Your task to perform on an android device: turn off data saver in the chrome app Image 0: 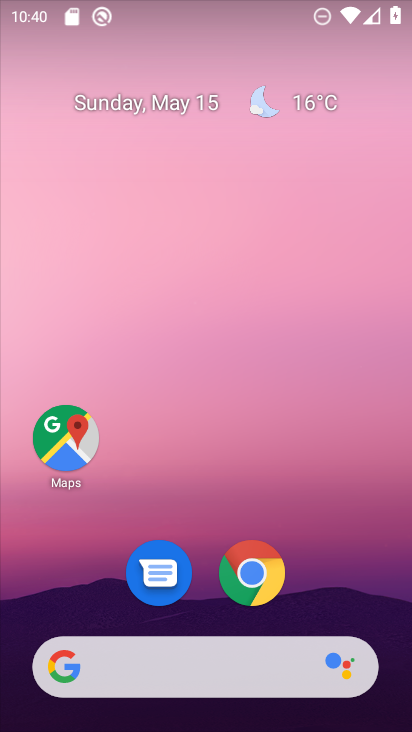
Step 0: click (257, 580)
Your task to perform on an android device: turn off data saver in the chrome app Image 1: 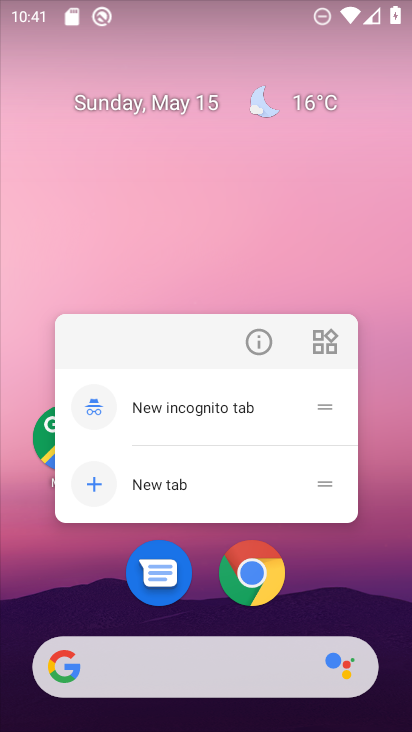
Step 1: click (242, 579)
Your task to perform on an android device: turn off data saver in the chrome app Image 2: 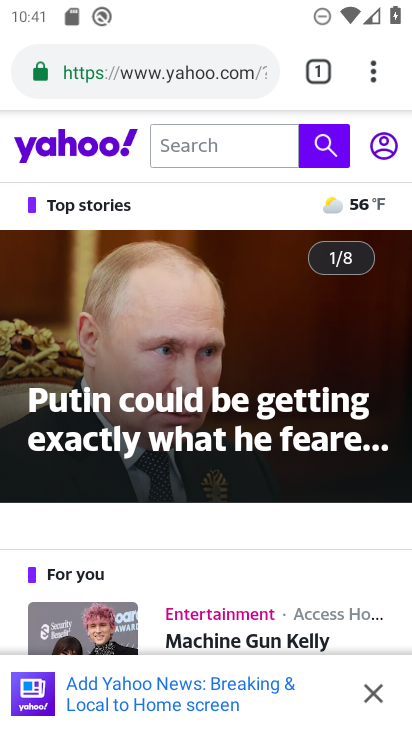
Step 2: drag from (366, 71) to (119, 578)
Your task to perform on an android device: turn off data saver in the chrome app Image 3: 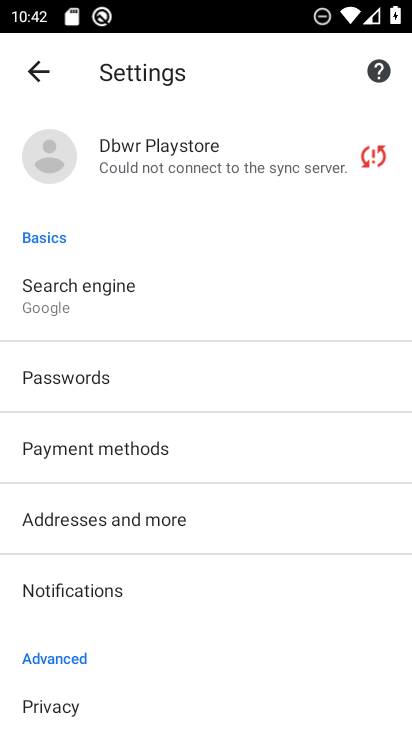
Step 3: drag from (206, 654) to (204, 464)
Your task to perform on an android device: turn off data saver in the chrome app Image 4: 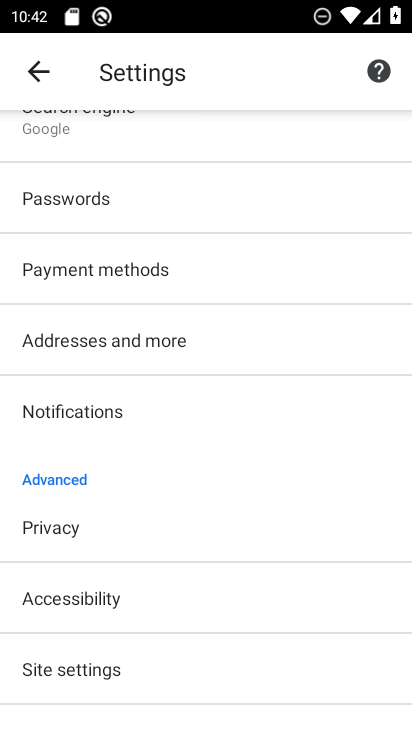
Step 4: drag from (215, 684) to (194, 194)
Your task to perform on an android device: turn off data saver in the chrome app Image 5: 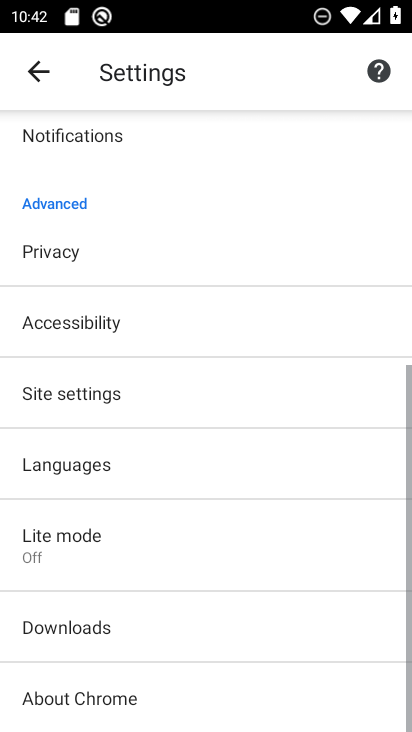
Step 5: click (99, 543)
Your task to perform on an android device: turn off data saver in the chrome app Image 6: 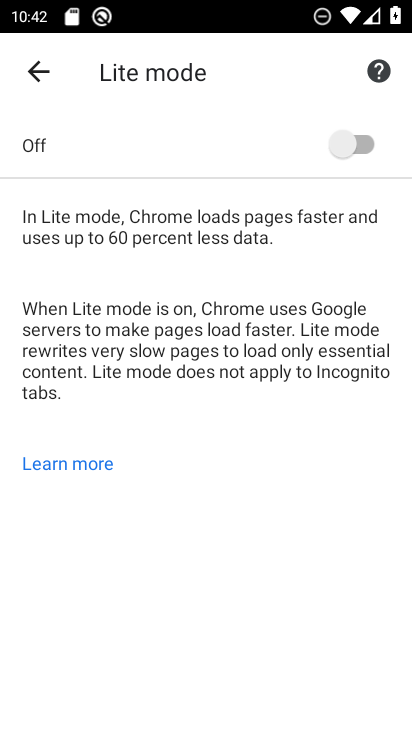
Step 6: click (331, 149)
Your task to perform on an android device: turn off data saver in the chrome app Image 7: 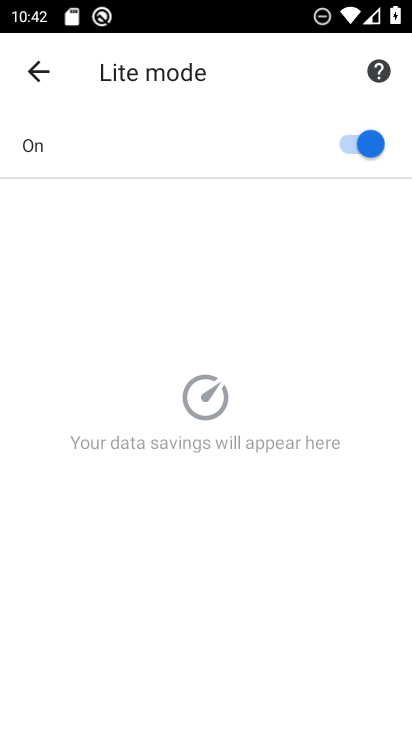
Step 7: task complete